Your task to perform on an android device: install app "DuckDuckGo Privacy Browser" Image 0: 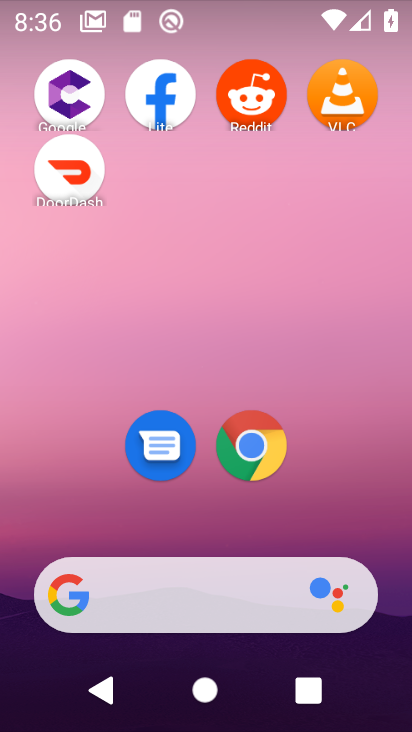
Step 0: drag from (207, 529) to (368, 0)
Your task to perform on an android device: install app "DuckDuckGo Privacy Browser" Image 1: 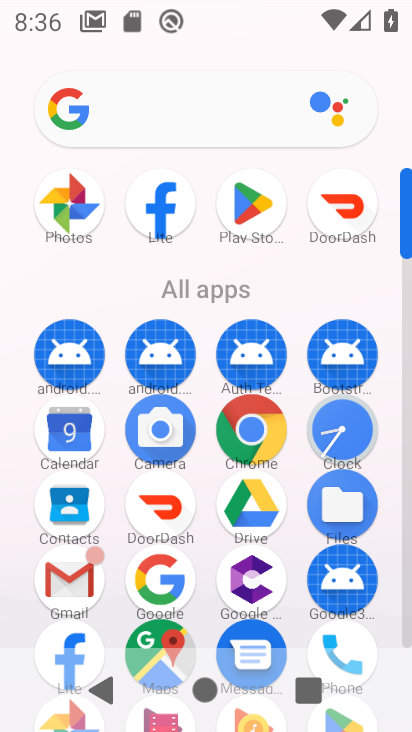
Step 1: click (261, 217)
Your task to perform on an android device: install app "DuckDuckGo Privacy Browser" Image 2: 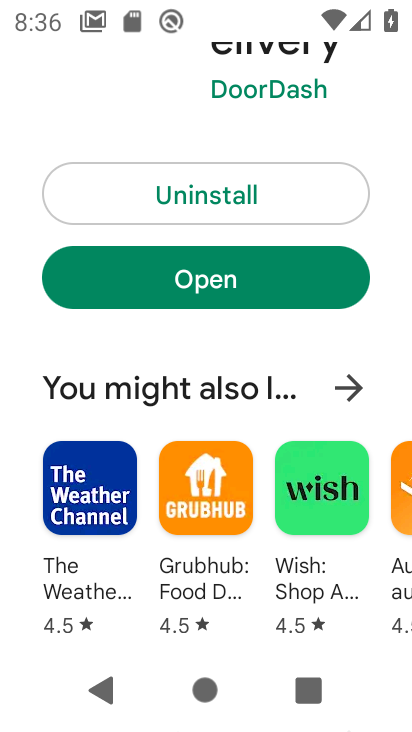
Step 2: drag from (54, 92) to (21, 598)
Your task to perform on an android device: install app "DuckDuckGo Privacy Browser" Image 3: 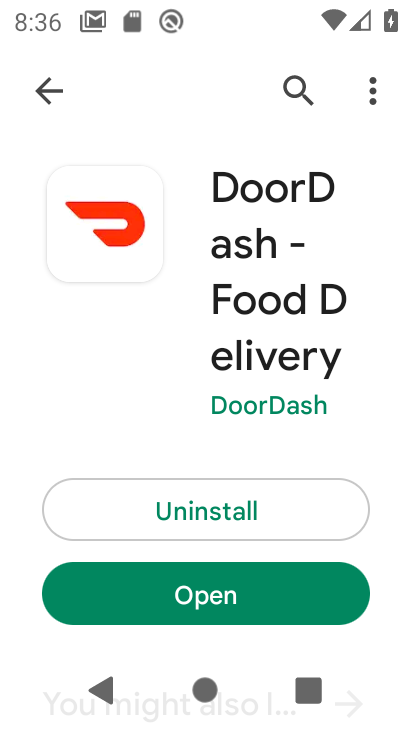
Step 3: click (60, 94)
Your task to perform on an android device: install app "DuckDuckGo Privacy Browser" Image 4: 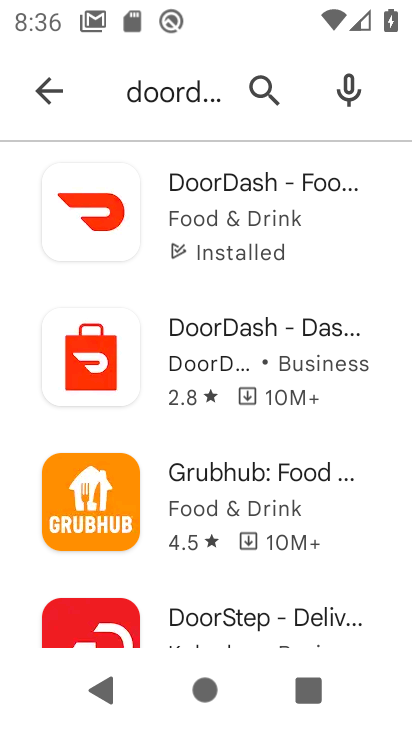
Step 4: click (266, 87)
Your task to perform on an android device: install app "DuckDuckGo Privacy Browser" Image 5: 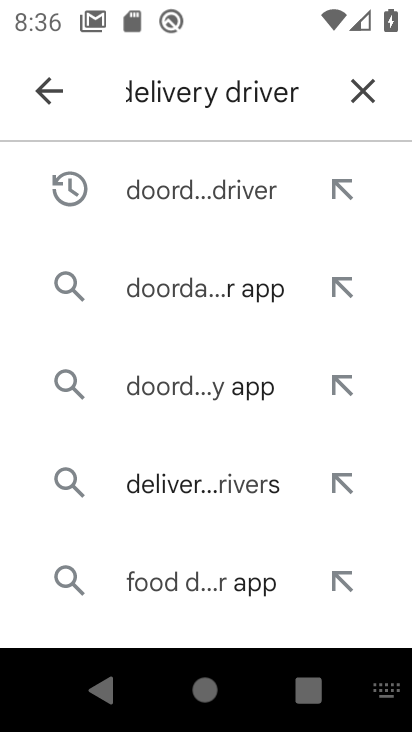
Step 5: click (357, 91)
Your task to perform on an android device: install app "DuckDuckGo Privacy Browser" Image 6: 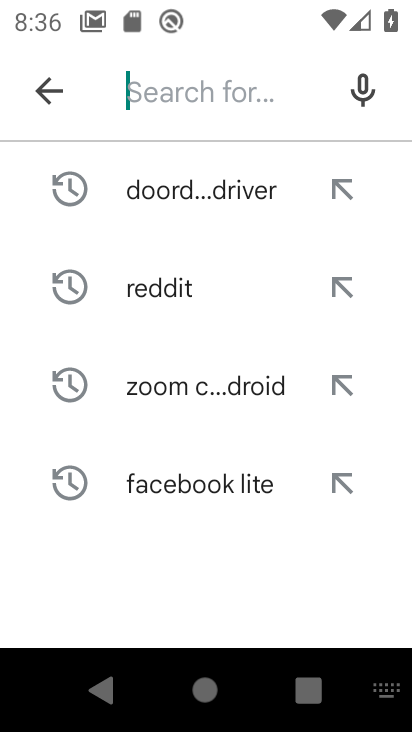
Step 6: type "DuckDuckGo Privacy Browser"
Your task to perform on an android device: install app "DuckDuckGo Privacy Browser" Image 7: 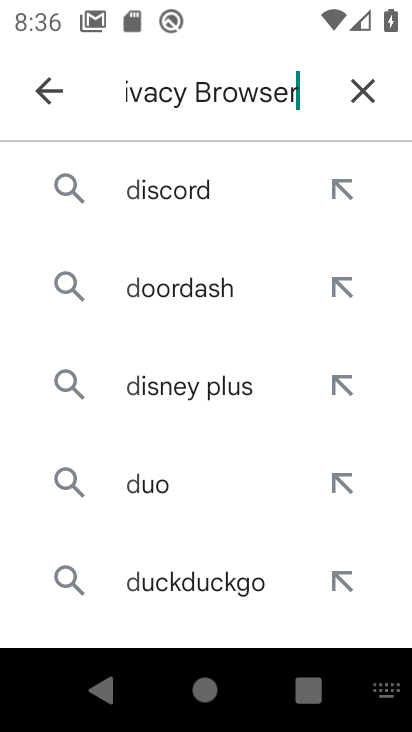
Step 7: type ""
Your task to perform on an android device: install app "DuckDuckGo Privacy Browser" Image 8: 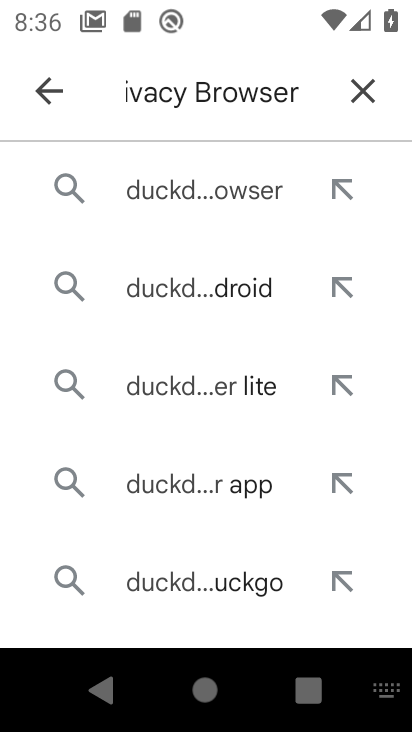
Step 8: click (163, 189)
Your task to perform on an android device: install app "DuckDuckGo Privacy Browser" Image 9: 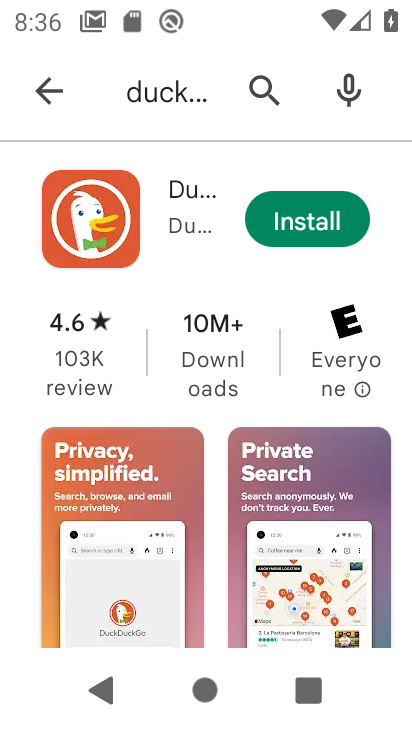
Step 9: click (291, 225)
Your task to perform on an android device: install app "DuckDuckGo Privacy Browser" Image 10: 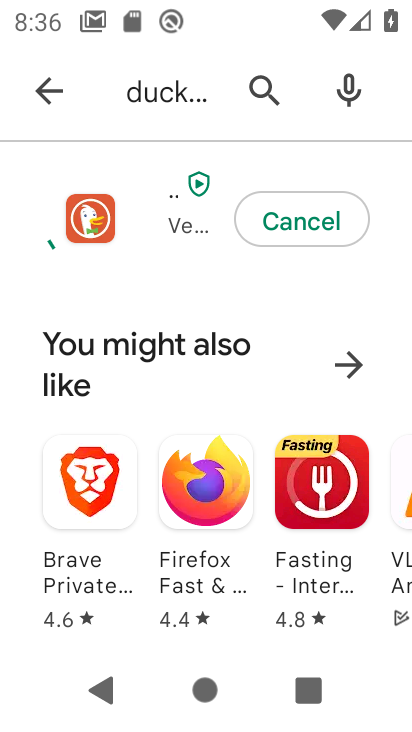
Step 10: click (173, 229)
Your task to perform on an android device: install app "DuckDuckGo Privacy Browser" Image 11: 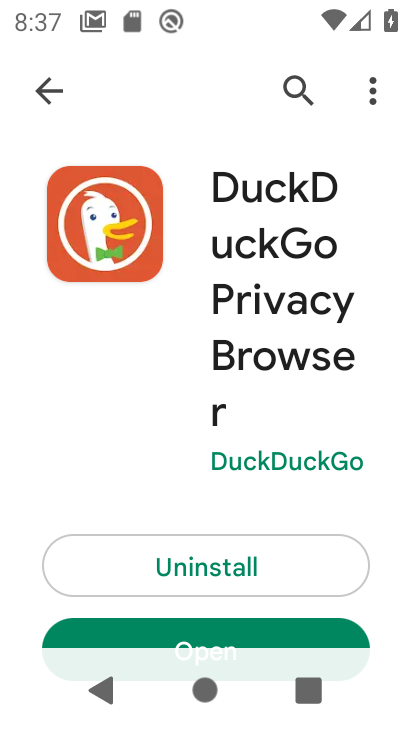
Step 11: task complete